Your task to perform on an android device: turn off airplane mode Image 0: 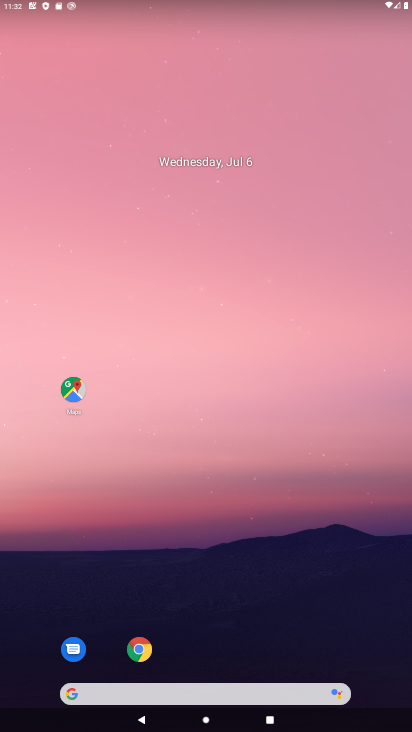
Step 0: drag from (393, 636) to (157, 3)
Your task to perform on an android device: turn off airplane mode Image 1: 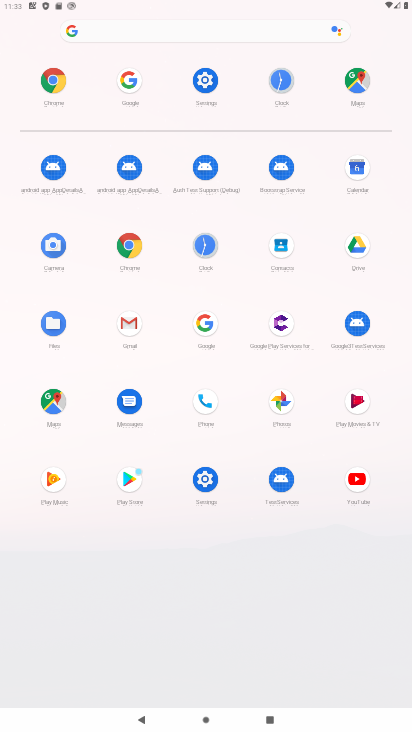
Step 1: drag from (261, 25) to (268, 486)
Your task to perform on an android device: turn off airplane mode Image 2: 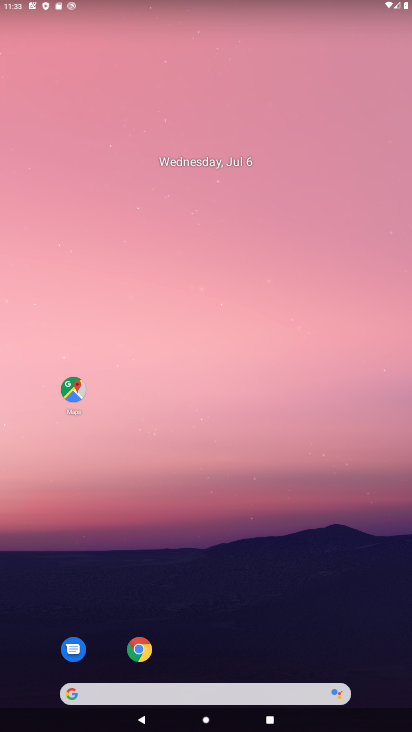
Step 2: drag from (241, 32) to (316, 594)
Your task to perform on an android device: turn off airplane mode Image 3: 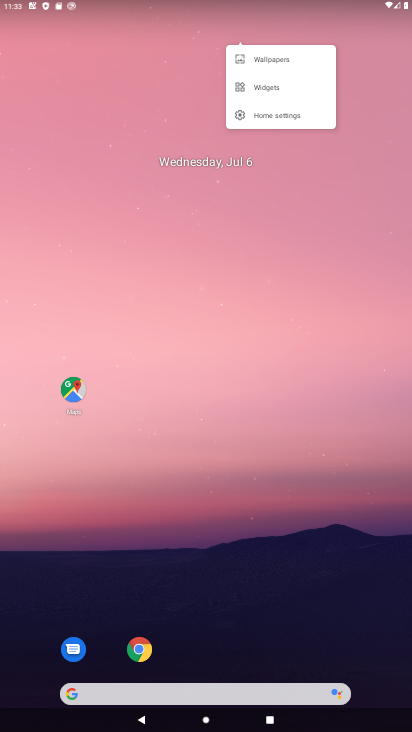
Step 3: click (296, 25)
Your task to perform on an android device: turn off airplane mode Image 4: 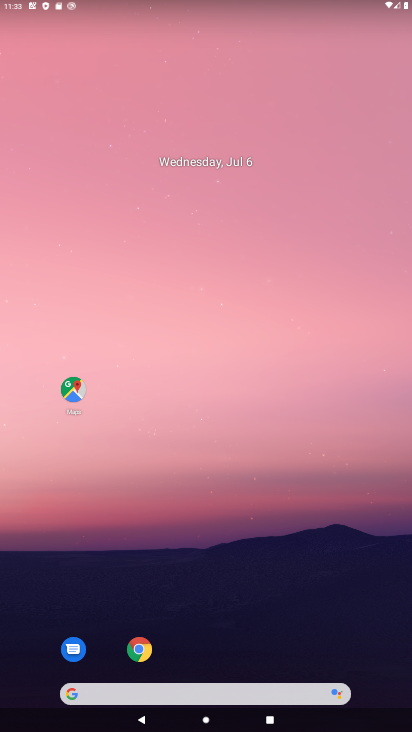
Step 4: task complete